Your task to perform on an android device: toggle notification dots Image 0: 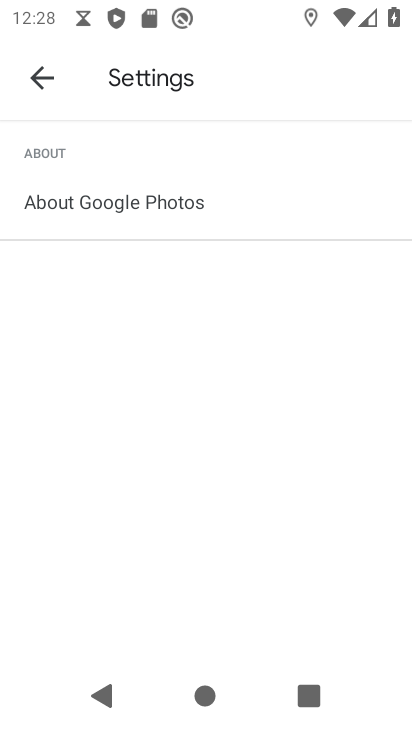
Step 0: press back button
Your task to perform on an android device: toggle notification dots Image 1: 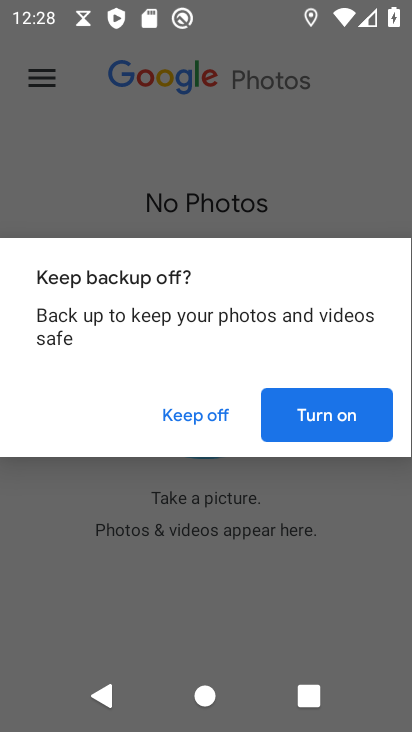
Step 1: press home button
Your task to perform on an android device: toggle notification dots Image 2: 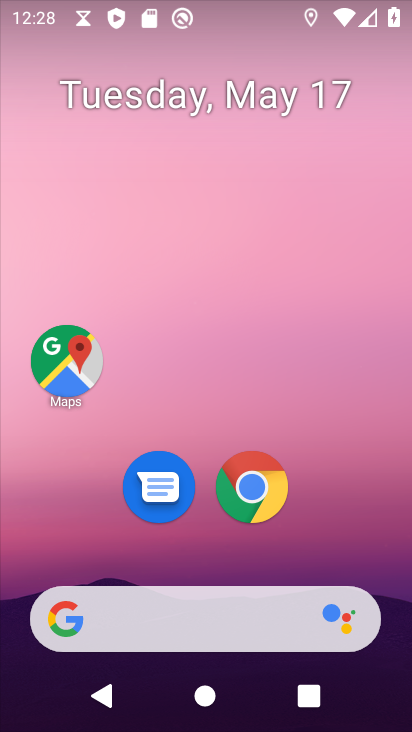
Step 2: drag from (327, 536) to (316, 4)
Your task to perform on an android device: toggle notification dots Image 3: 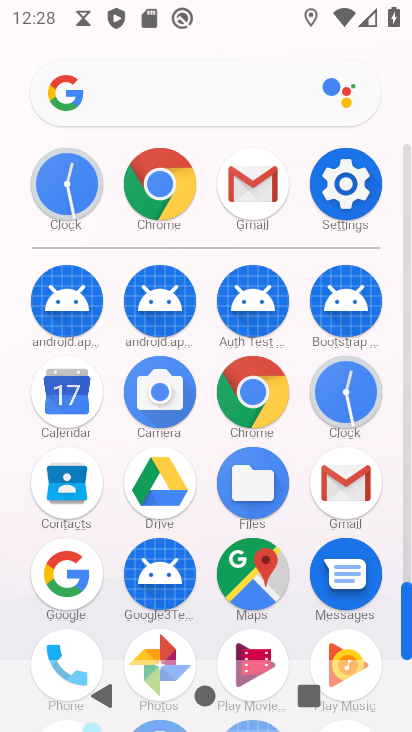
Step 3: click (347, 176)
Your task to perform on an android device: toggle notification dots Image 4: 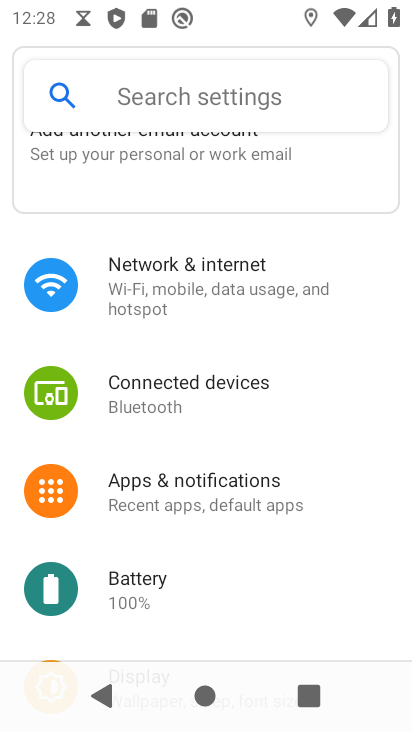
Step 4: click (219, 475)
Your task to perform on an android device: toggle notification dots Image 5: 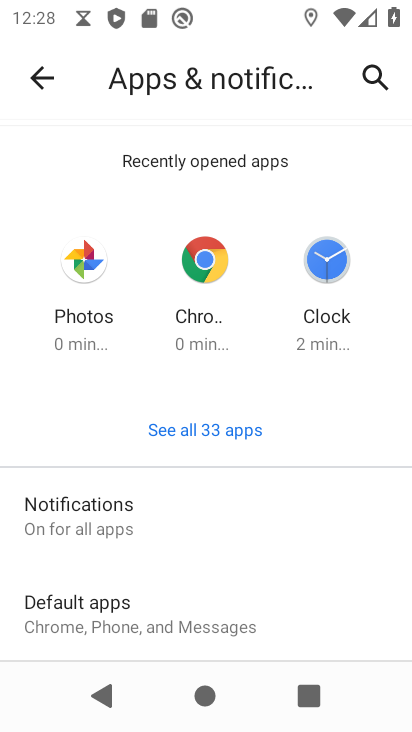
Step 5: click (150, 521)
Your task to perform on an android device: toggle notification dots Image 6: 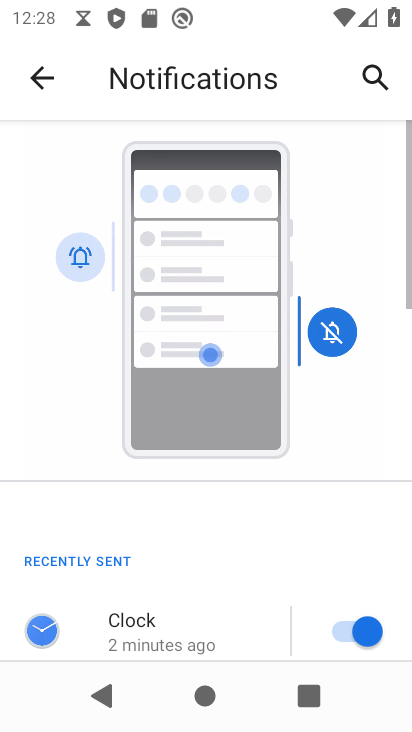
Step 6: drag from (190, 587) to (234, 80)
Your task to perform on an android device: toggle notification dots Image 7: 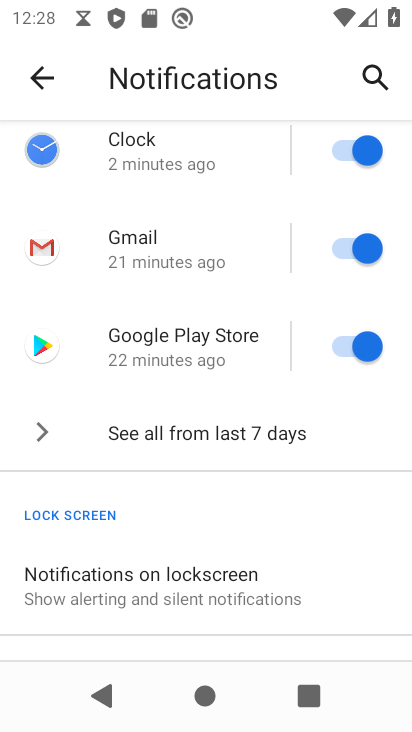
Step 7: drag from (213, 568) to (235, 121)
Your task to perform on an android device: toggle notification dots Image 8: 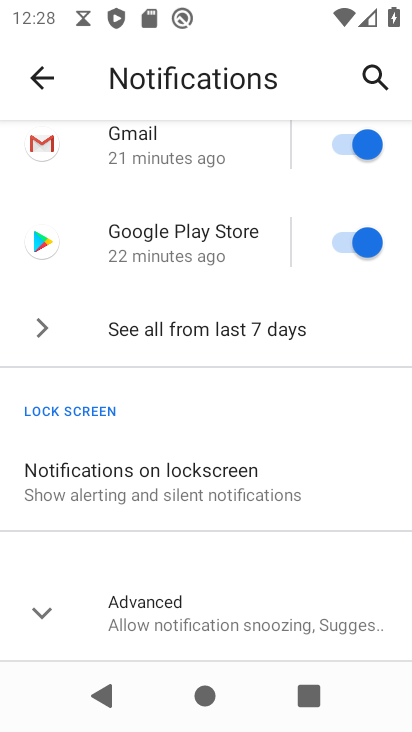
Step 8: click (138, 609)
Your task to perform on an android device: toggle notification dots Image 9: 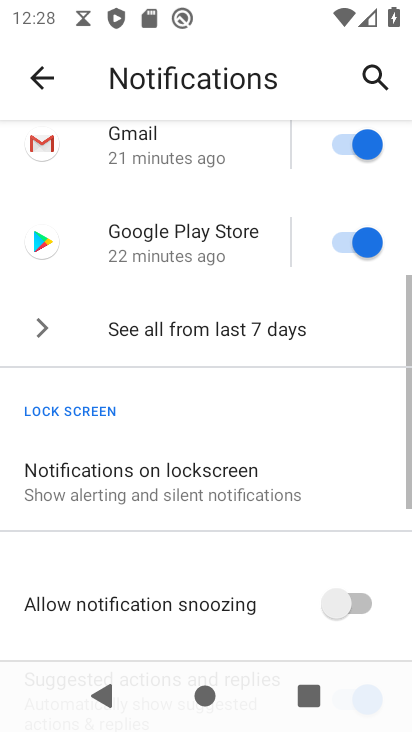
Step 9: drag from (170, 562) to (202, 268)
Your task to perform on an android device: toggle notification dots Image 10: 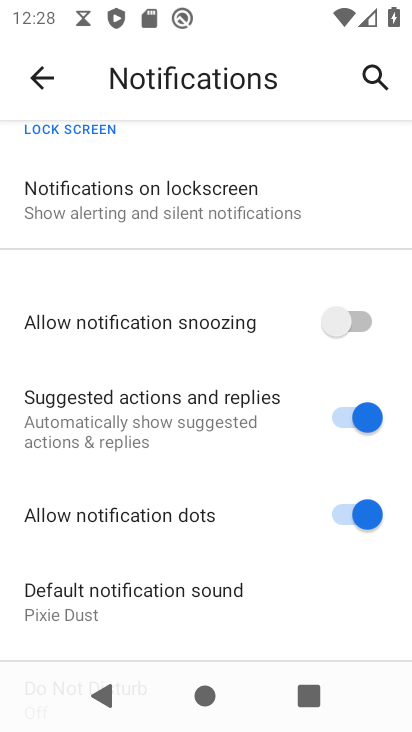
Step 10: click (350, 510)
Your task to perform on an android device: toggle notification dots Image 11: 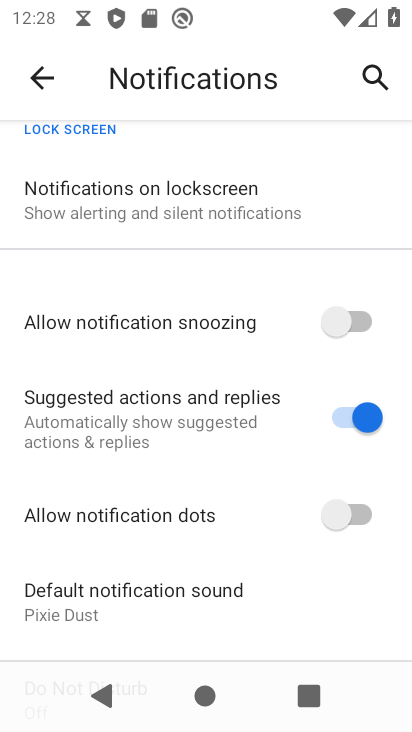
Step 11: task complete